Your task to perform on an android device: Do I have any events today? Image 0: 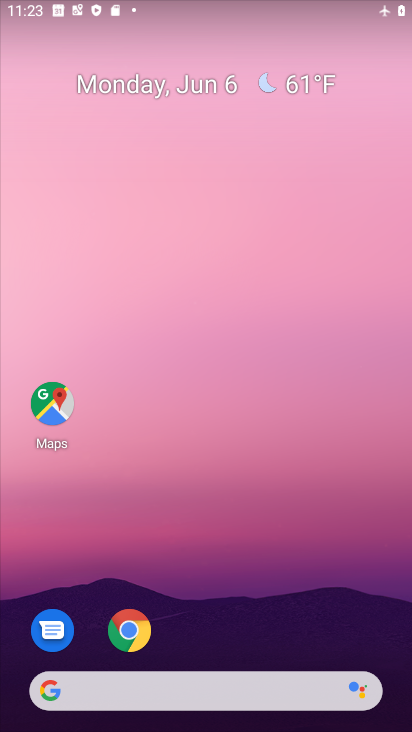
Step 0: drag from (332, 598) to (349, 117)
Your task to perform on an android device: Do I have any events today? Image 1: 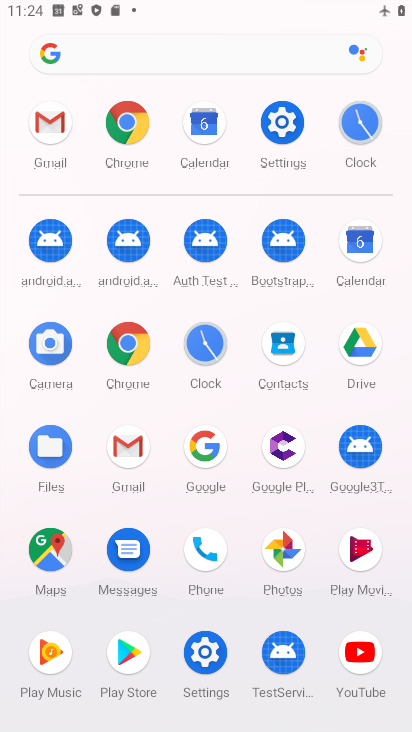
Step 1: click (369, 248)
Your task to perform on an android device: Do I have any events today? Image 2: 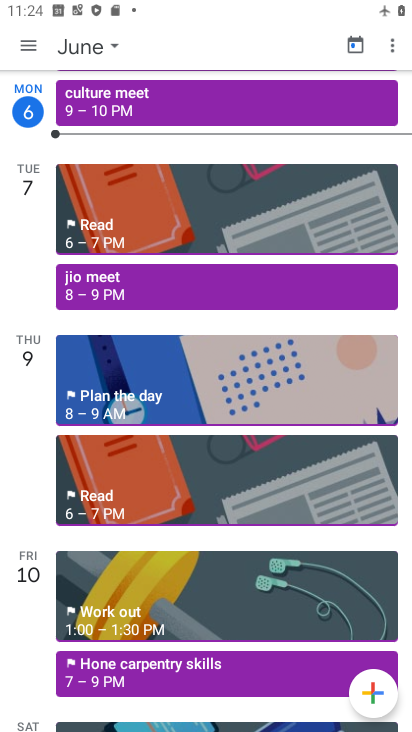
Step 2: task complete